Your task to perform on an android device: change alarm snooze length Image 0: 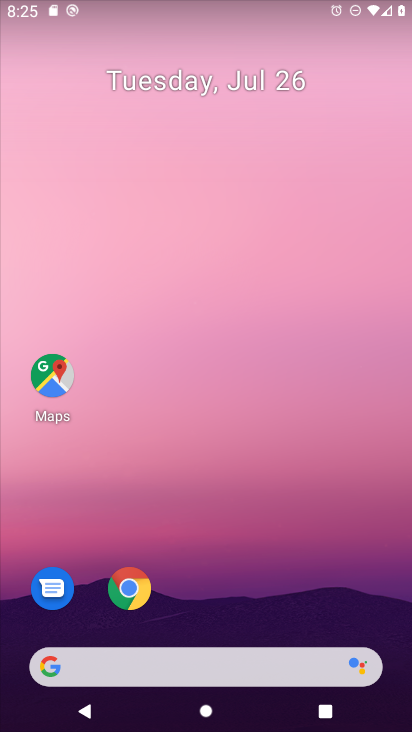
Step 0: drag from (188, 660) to (265, 125)
Your task to perform on an android device: change alarm snooze length Image 1: 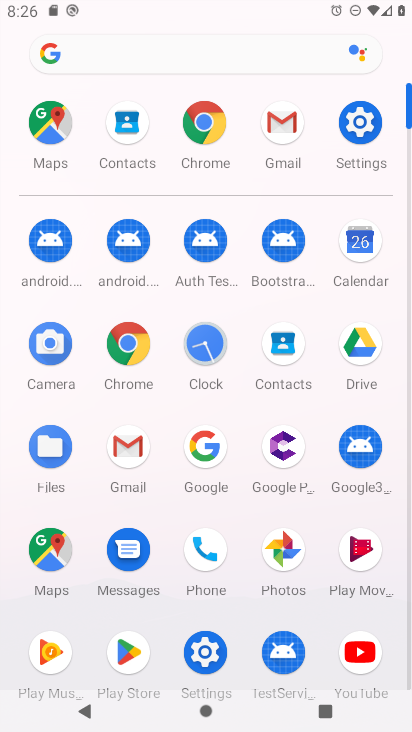
Step 1: click (212, 377)
Your task to perform on an android device: change alarm snooze length Image 2: 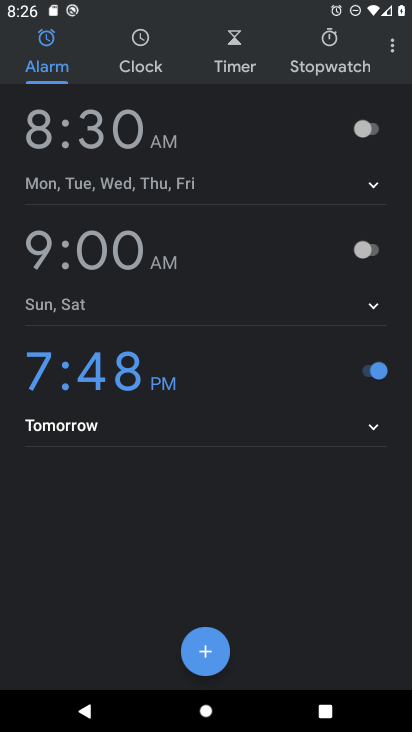
Step 2: click (384, 54)
Your task to perform on an android device: change alarm snooze length Image 3: 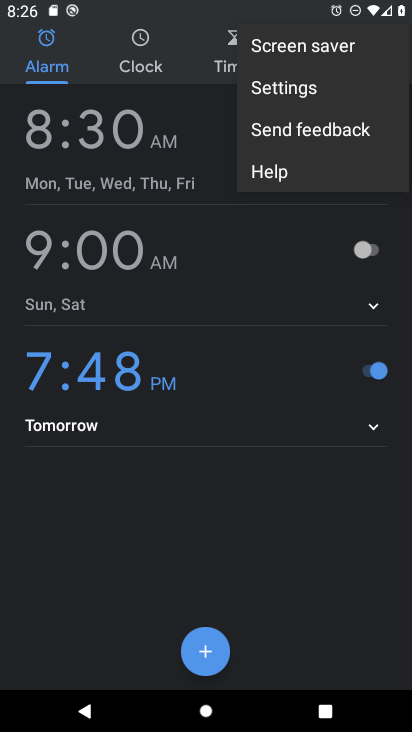
Step 3: click (328, 87)
Your task to perform on an android device: change alarm snooze length Image 4: 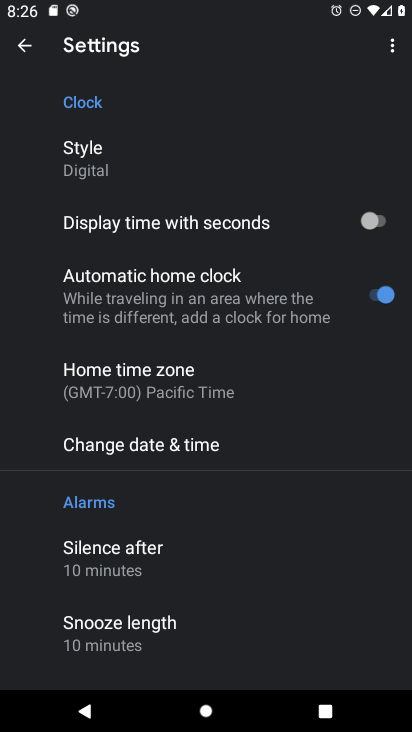
Step 4: click (128, 628)
Your task to perform on an android device: change alarm snooze length Image 5: 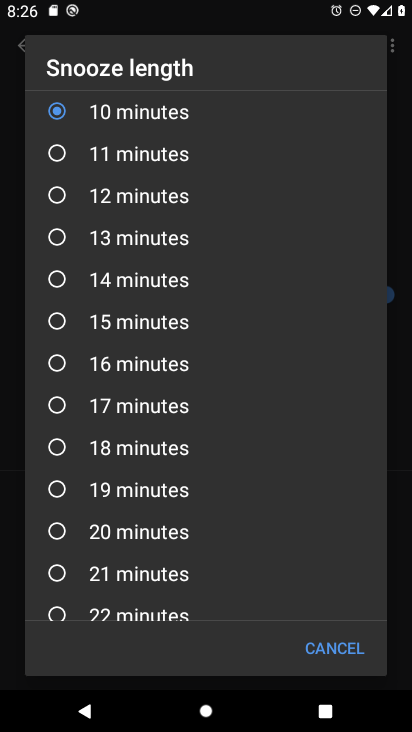
Step 5: click (55, 204)
Your task to perform on an android device: change alarm snooze length Image 6: 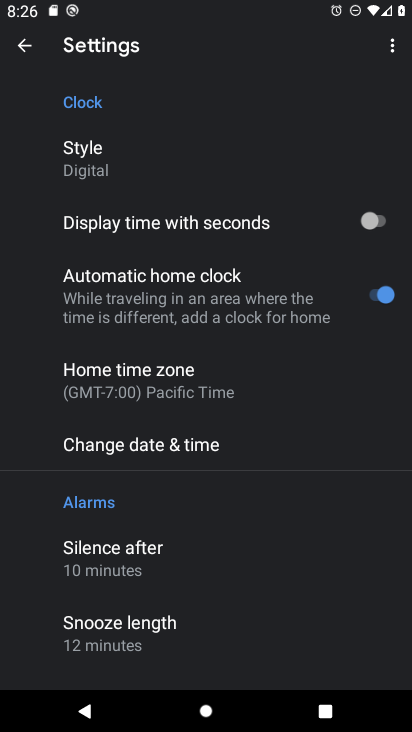
Step 6: task complete